Your task to perform on an android device: turn on translation in the chrome app Image 0: 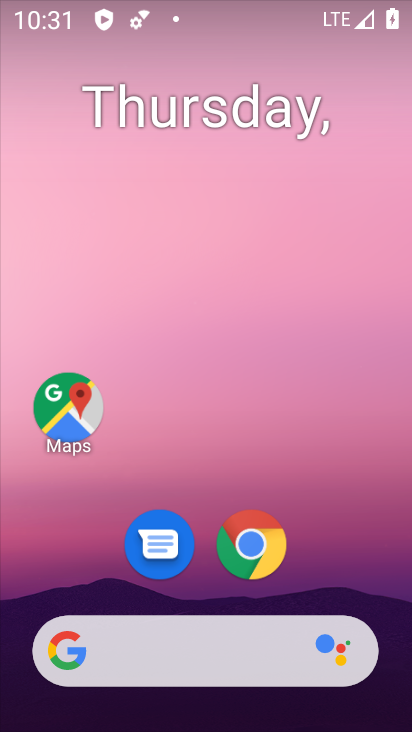
Step 0: click (261, 550)
Your task to perform on an android device: turn on translation in the chrome app Image 1: 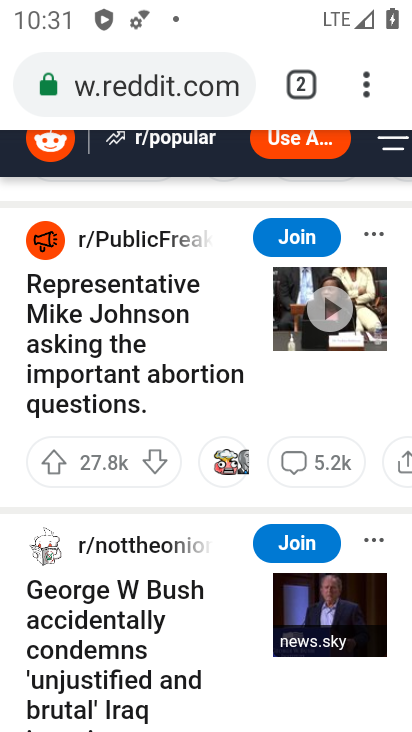
Step 1: click (365, 90)
Your task to perform on an android device: turn on translation in the chrome app Image 2: 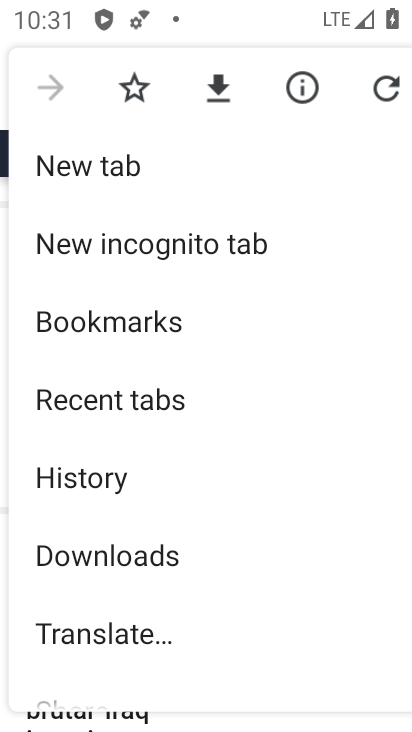
Step 2: drag from (107, 639) to (86, 304)
Your task to perform on an android device: turn on translation in the chrome app Image 3: 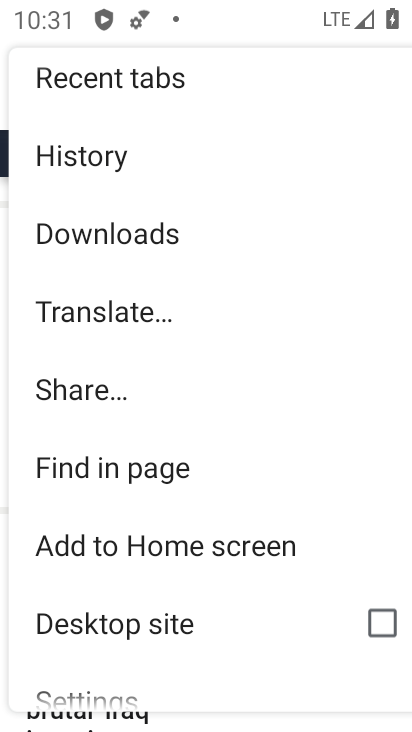
Step 3: click (82, 689)
Your task to perform on an android device: turn on translation in the chrome app Image 4: 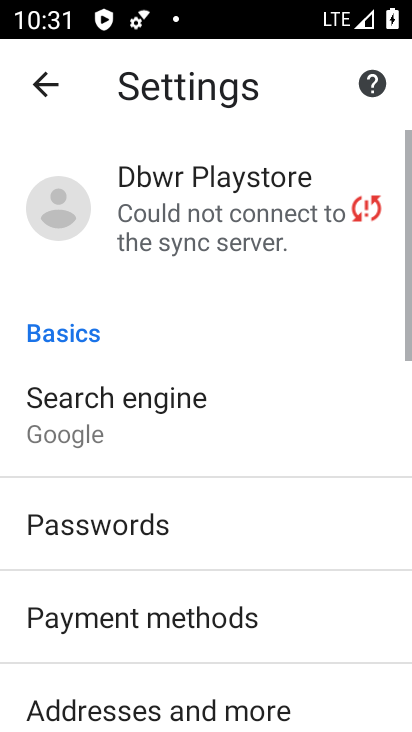
Step 4: drag from (97, 653) to (132, 180)
Your task to perform on an android device: turn on translation in the chrome app Image 5: 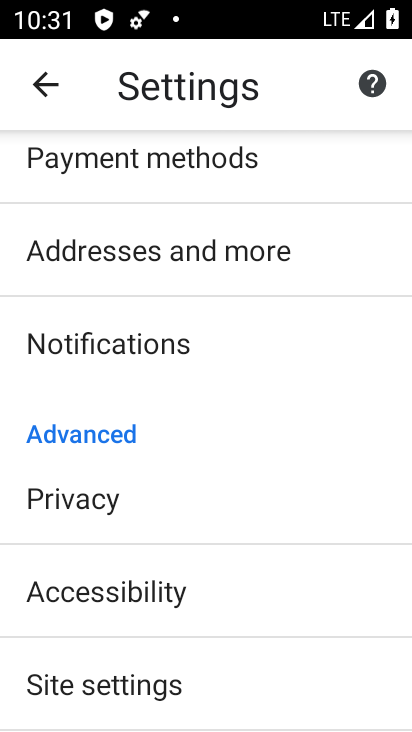
Step 5: drag from (321, 655) to (303, 281)
Your task to perform on an android device: turn on translation in the chrome app Image 6: 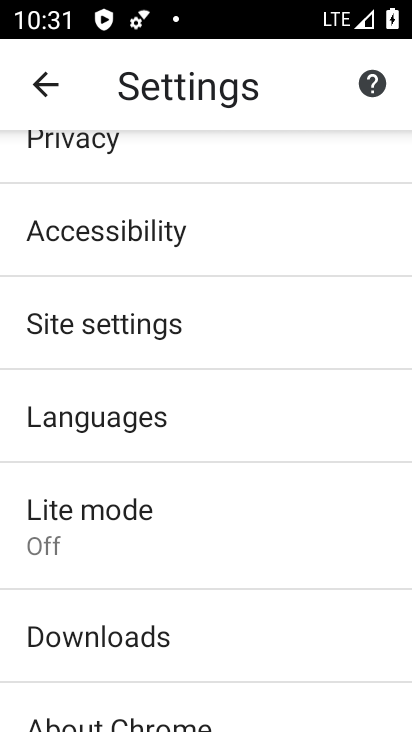
Step 6: click (111, 417)
Your task to perform on an android device: turn on translation in the chrome app Image 7: 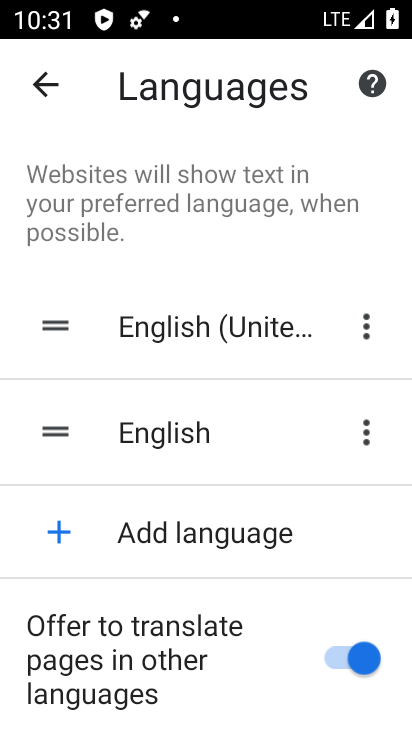
Step 7: task complete